Your task to perform on an android device: toggle data saver in the chrome app Image 0: 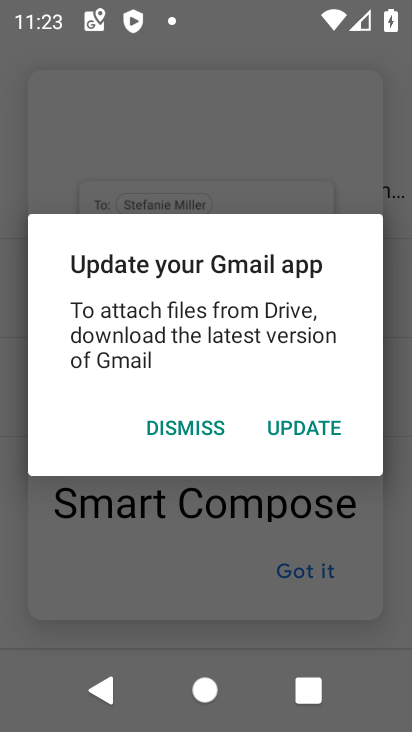
Step 0: press home button
Your task to perform on an android device: toggle data saver in the chrome app Image 1: 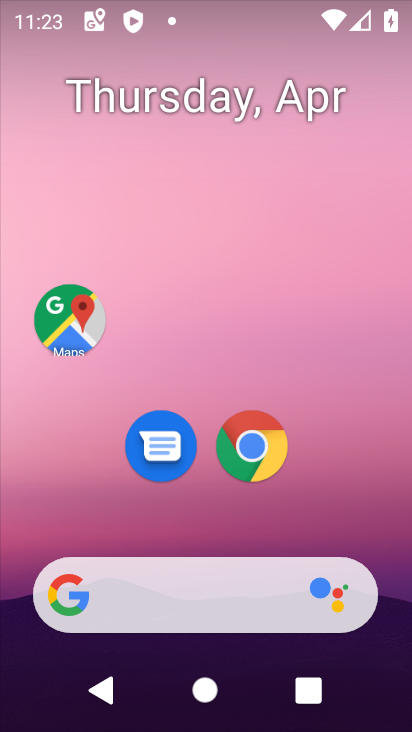
Step 1: click (228, 468)
Your task to perform on an android device: toggle data saver in the chrome app Image 2: 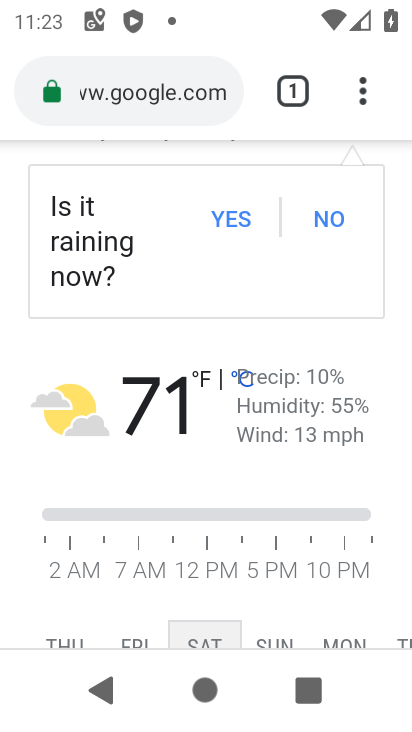
Step 2: click (362, 110)
Your task to perform on an android device: toggle data saver in the chrome app Image 3: 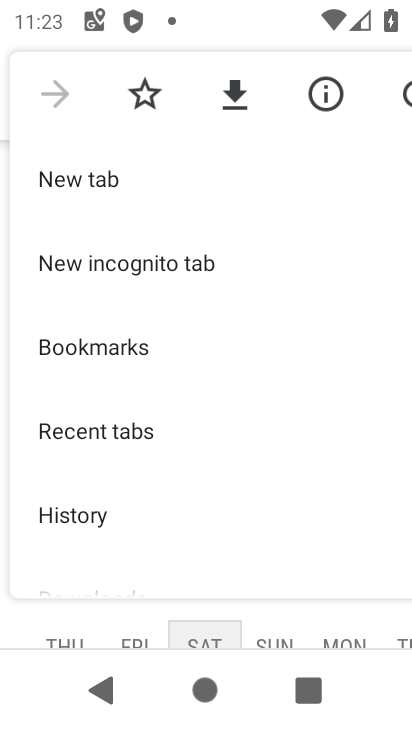
Step 3: drag from (224, 547) to (294, 26)
Your task to perform on an android device: toggle data saver in the chrome app Image 4: 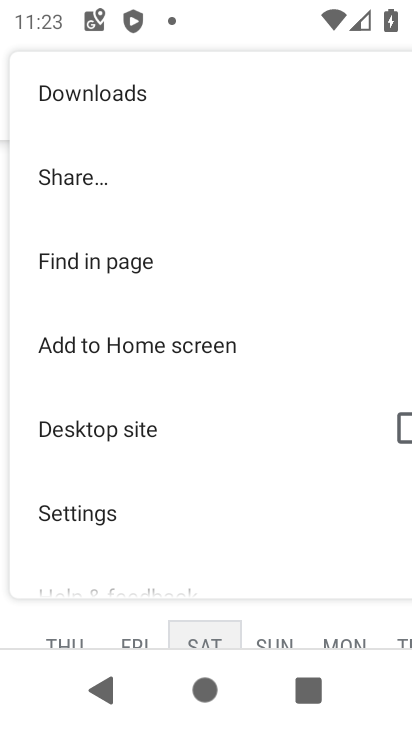
Step 4: click (189, 513)
Your task to perform on an android device: toggle data saver in the chrome app Image 5: 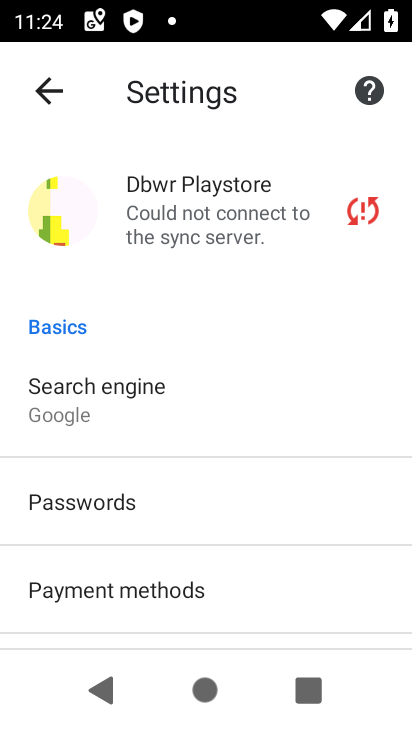
Step 5: drag from (198, 606) to (204, 191)
Your task to perform on an android device: toggle data saver in the chrome app Image 6: 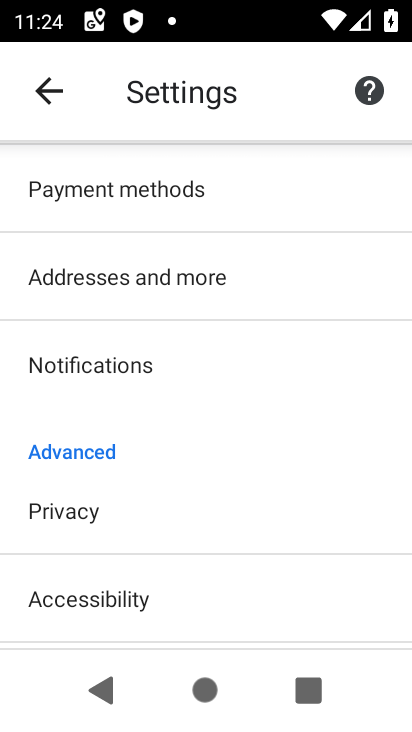
Step 6: drag from (164, 619) to (177, 112)
Your task to perform on an android device: toggle data saver in the chrome app Image 7: 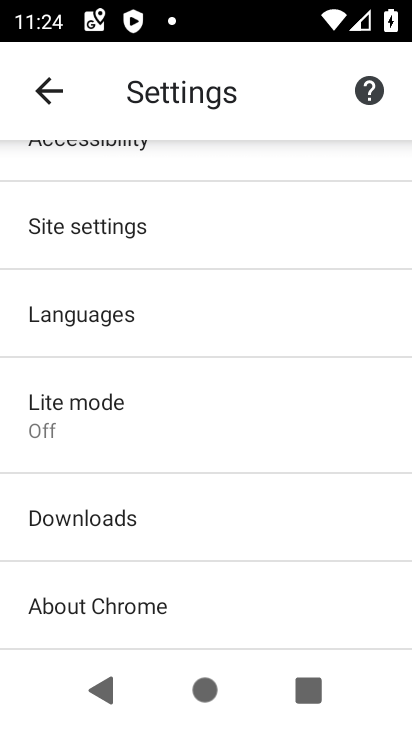
Step 7: click (129, 417)
Your task to perform on an android device: toggle data saver in the chrome app Image 8: 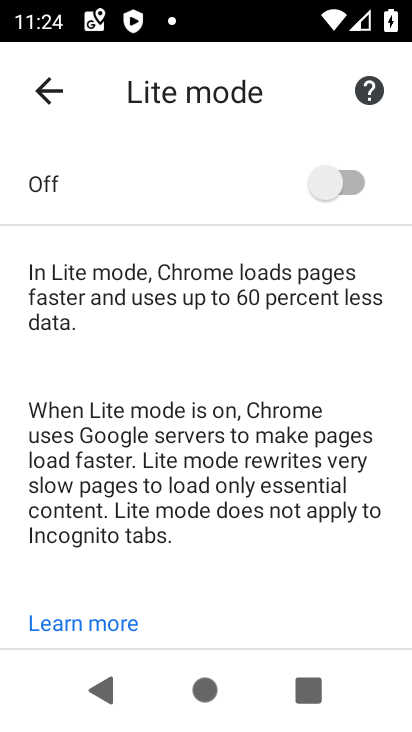
Step 8: click (338, 194)
Your task to perform on an android device: toggle data saver in the chrome app Image 9: 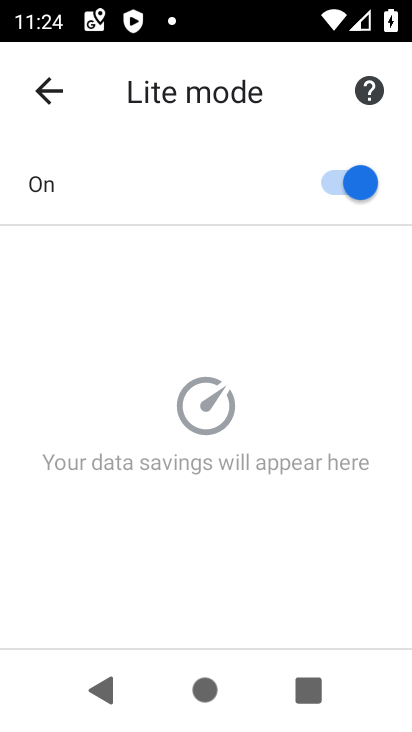
Step 9: task complete